Your task to perform on an android device: turn off notifications in google photos Image 0: 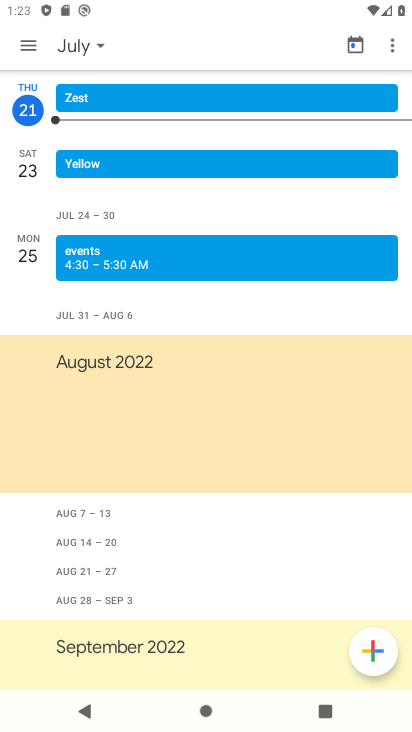
Step 0: press home button
Your task to perform on an android device: turn off notifications in google photos Image 1: 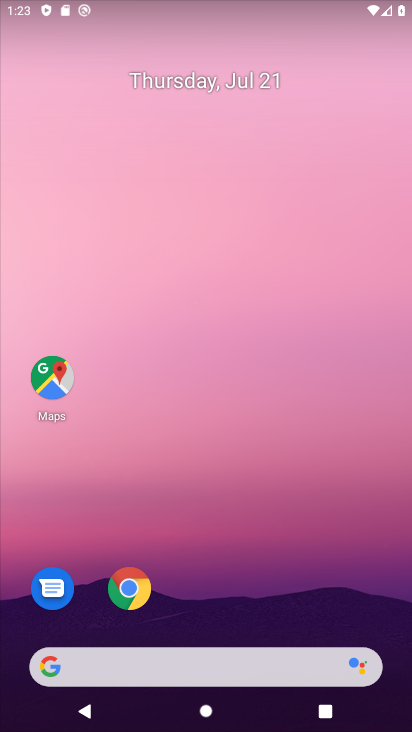
Step 1: drag from (212, 620) to (222, 36)
Your task to perform on an android device: turn off notifications in google photos Image 2: 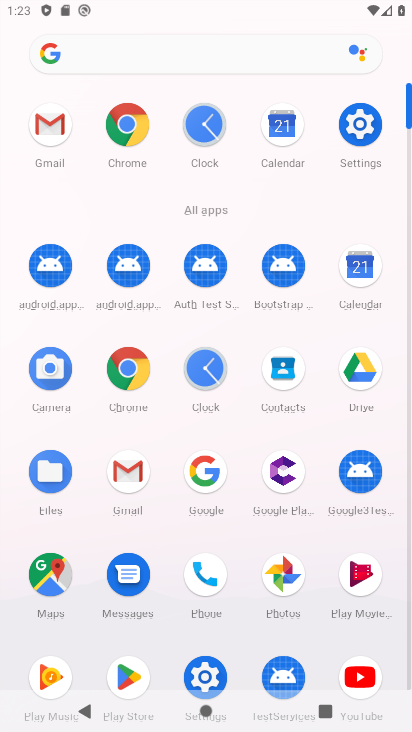
Step 2: click (277, 595)
Your task to perform on an android device: turn off notifications in google photos Image 3: 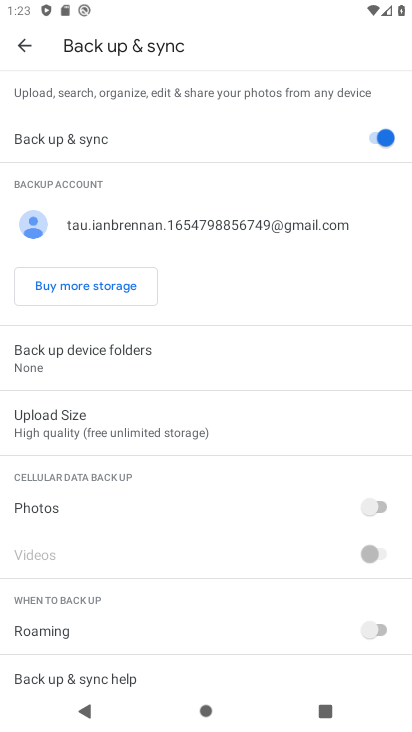
Step 3: click (26, 47)
Your task to perform on an android device: turn off notifications in google photos Image 4: 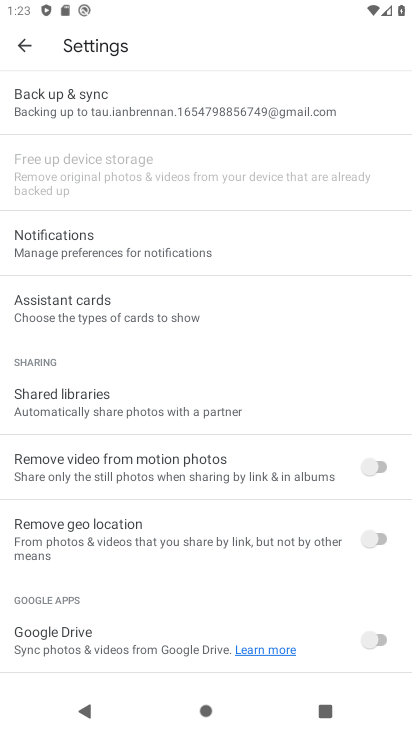
Step 4: click (55, 240)
Your task to perform on an android device: turn off notifications in google photos Image 5: 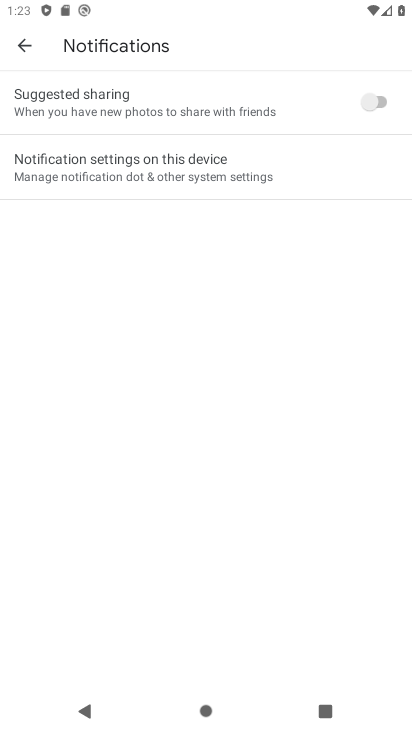
Step 5: click (311, 166)
Your task to perform on an android device: turn off notifications in google photos Image 6: 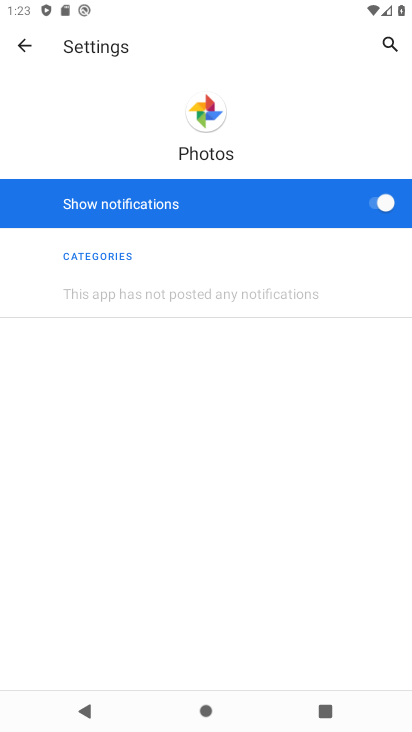
Step 6: click (380, 202)
Your task to perform on an android device: turn off notifications in google photos Image 7: 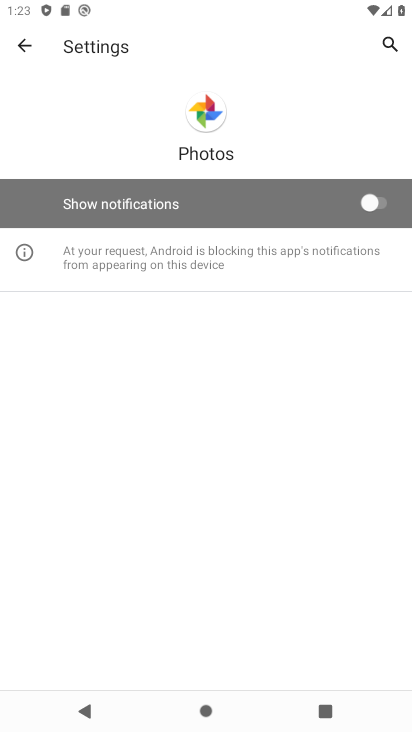
Step 7: task complete